Your task to perform on an android device: turn off airplane mode Image 0: 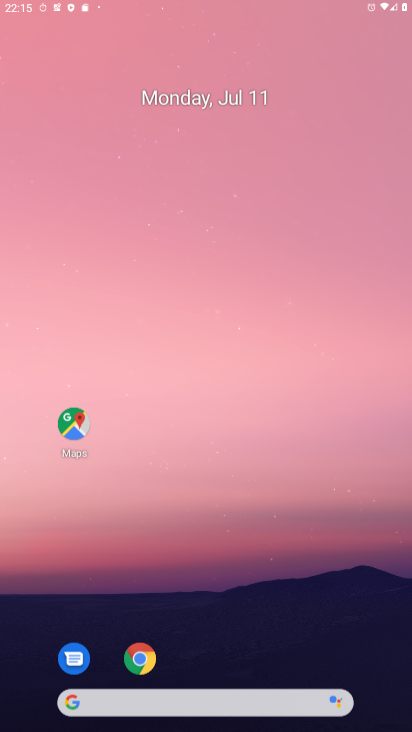
Step 0: click (261, 133)
Your task to perform on an android device: turn off airplane mode Image 1: 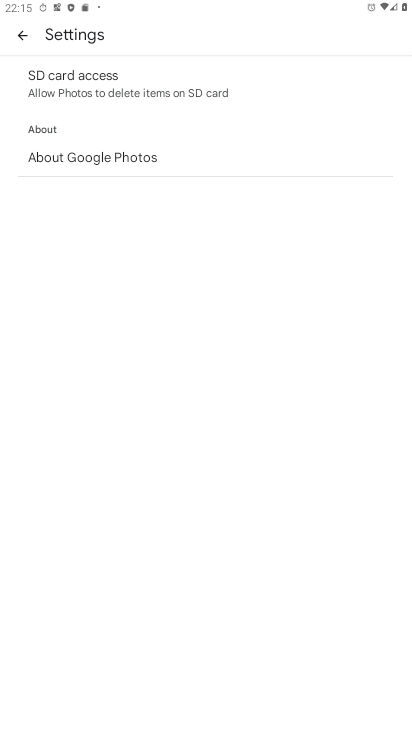
Step 1: press home button
Your task to perform on an android device: turn off airplane mode Image 2: 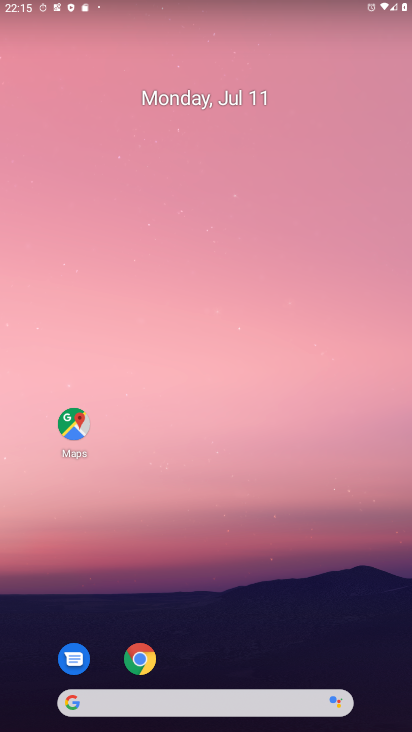
Step 2: drag from (212, 509) to (269, 210)
Your task to perform on an android device: turn off airplane mode Image 3: 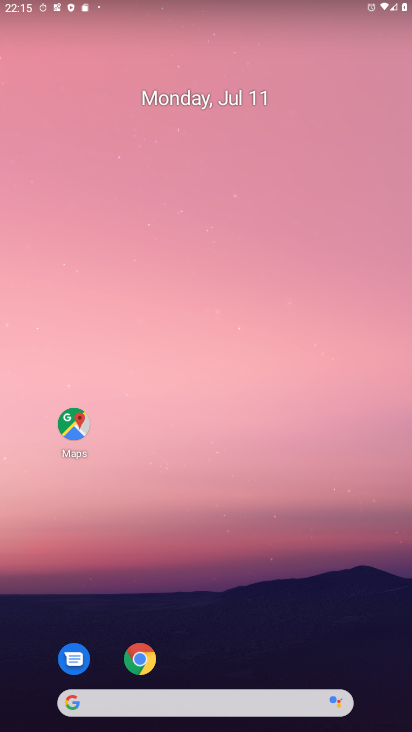
Step 3: drag from (255, 672) to (410, 78)
Your task to perform on an android device: turn off airplane mode Image 4: 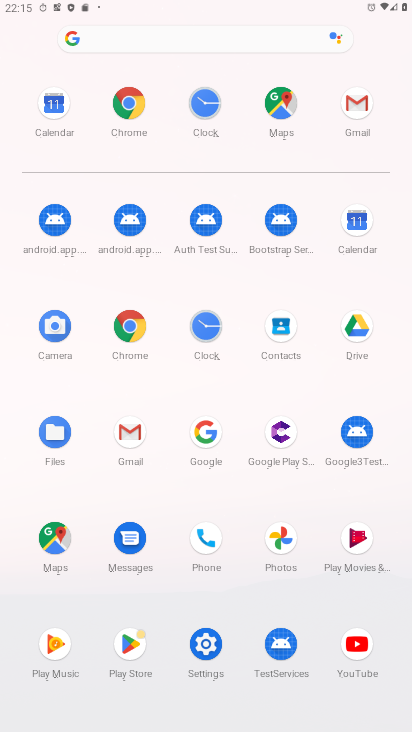
Step 4: click (198, 651)
Your task to perform on an android device: turn off airplane mode Image 5: 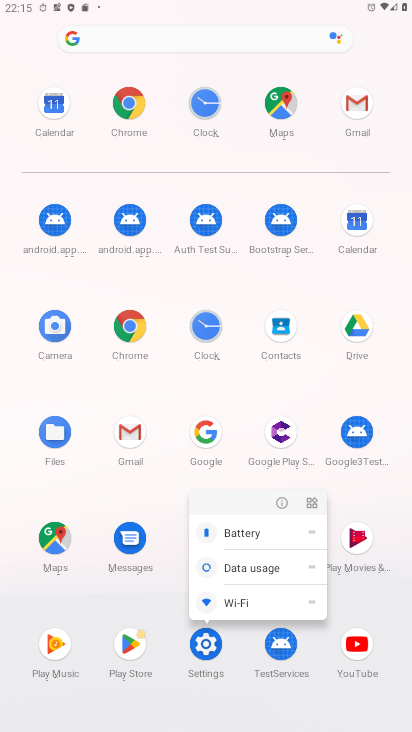
Step 5: click (274, 496)
Your task to perform on an android device: turn off airplane mode Image 6: 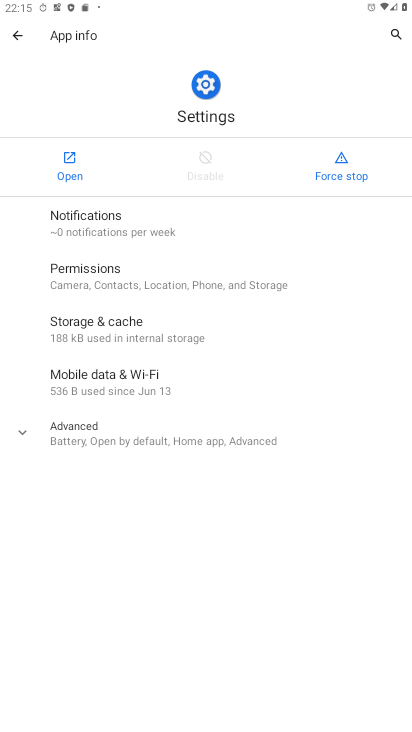
Step 6: click (55, 159)
Your task to perform on an android device: turn off airplane mode Image 7: 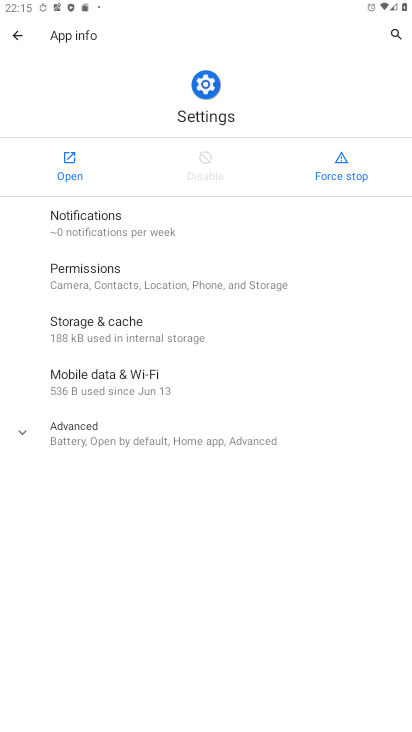
Step 7: click (59, 163)
Your task to perform on an android device: turn off airplane mode Image 8: 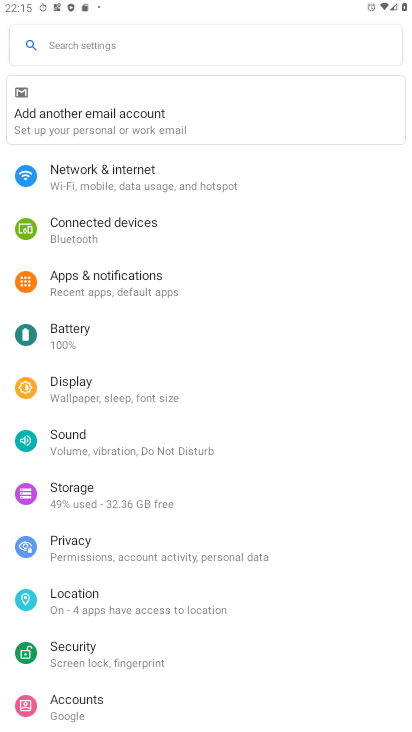
Step 8: click (164, 171)
Your task to perform on an android device: turn off airplane mode Image 9: 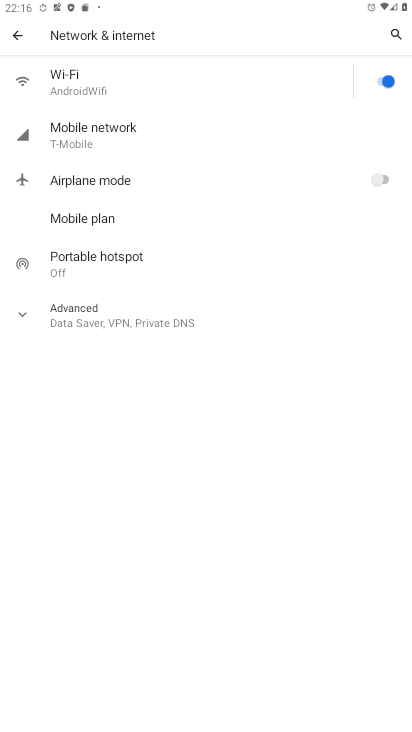
Step 9: task complete